Your task to perform on an android device: all mails in gmail Image 0: 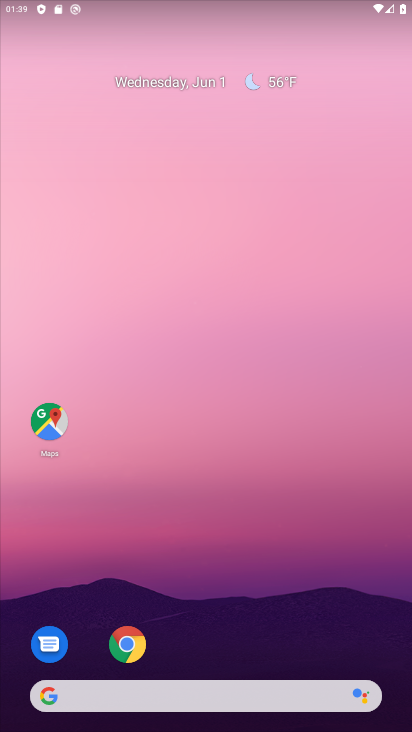
Step 0: drag from (205, 465) to (234, 257)
Your task to perform on an android device: all mails in gmail Image 1: 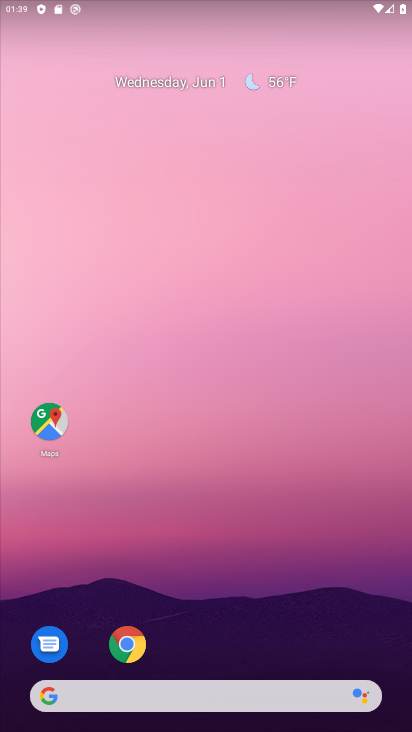
Step 1: drag from (231, 669) to (231, 145)
Your task to perform on an android device: all mails in gmail Image 2: 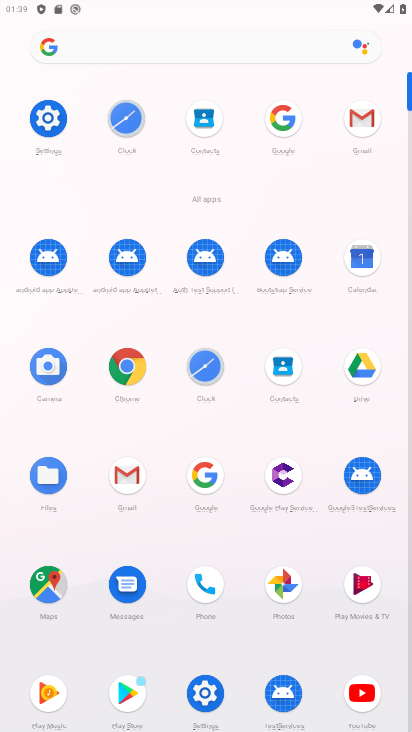
Step 2: click (364, 125)
Your task to perform on an android device: all mails in gmail Image 3: 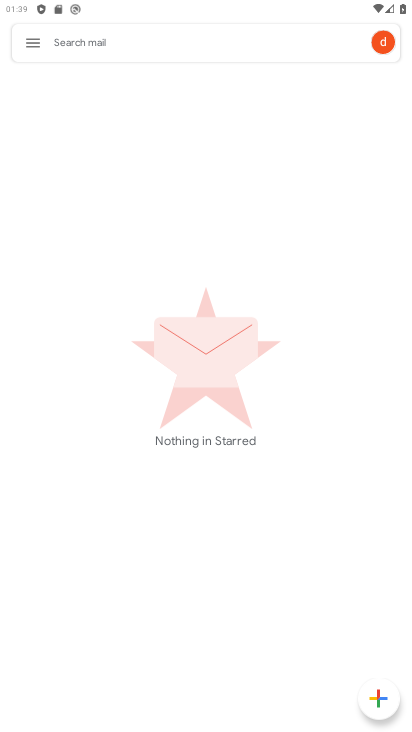
Step 3: click (41, 36)
Your task to perform on an android device: all mails in gmail Image 4: 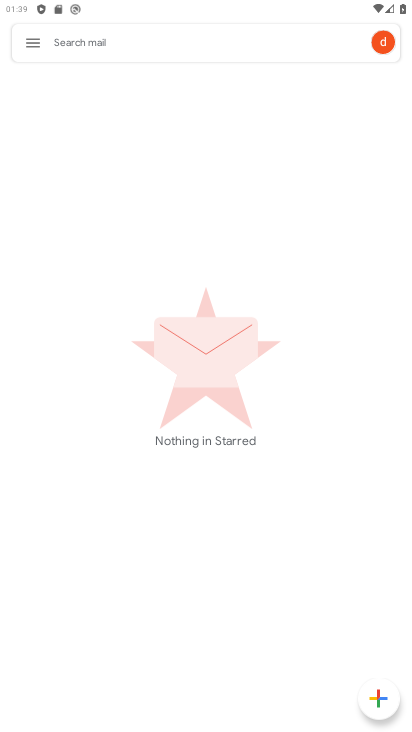
Step 4: click (40, 42)
Your task to perform on an android device: all mails in gmail Image 5: 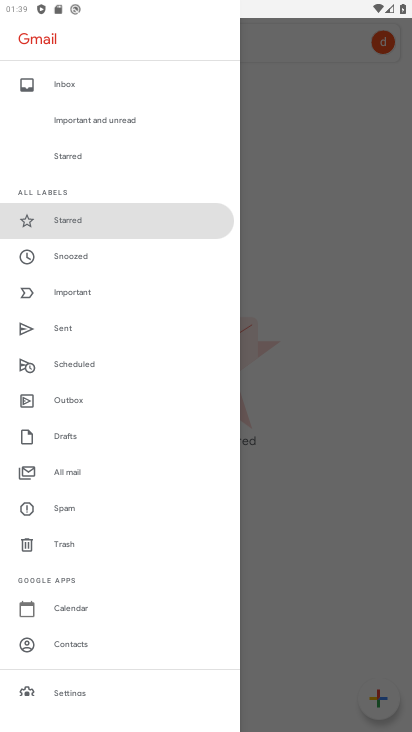
Step 5: click (32, 52)
Your task to perform on an android device: all mails in gmail Image 6: 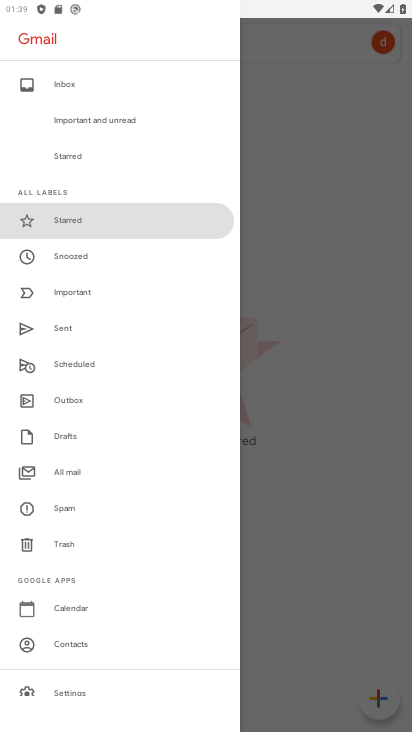
Step 6: click (58, 474)
Your task to perform on an android device: all mails in gmail Image 7: 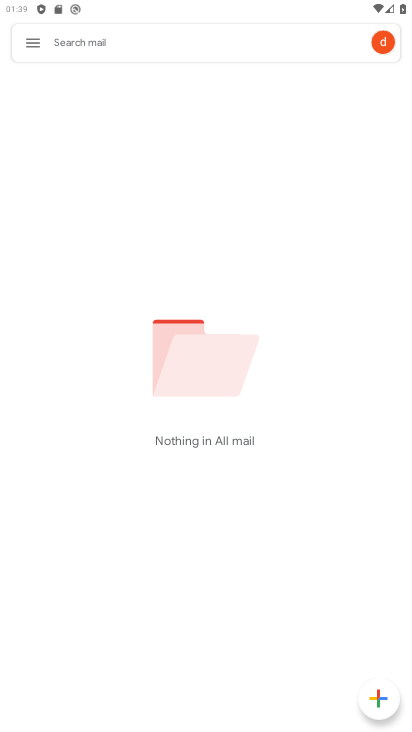
Step 7: task complete